Your task to perform on an android device: open app "Microsoft Authenticator" (install if not already installed) Image 0: 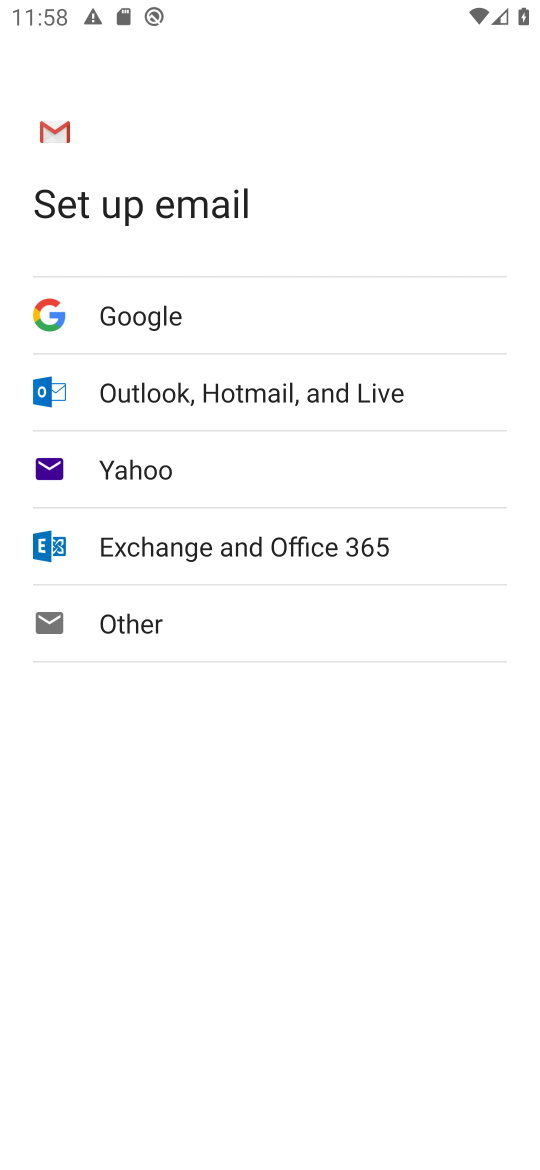
Step 0: press home button
Your task to perform on an android device: open app "Microsoft Authenticator" (install if not already installed) Image 1: 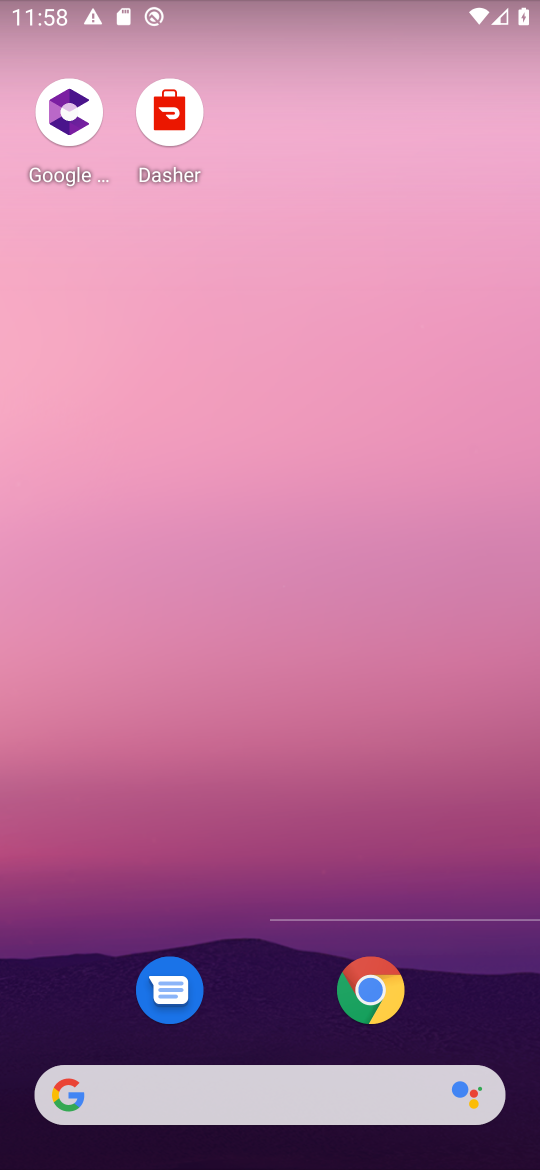
Step 1: drag from (273, 1053) to (299, 220)
Your task to perform on an android device: open app "Microsoft Authenticator" (install if not already installed) Image 2: 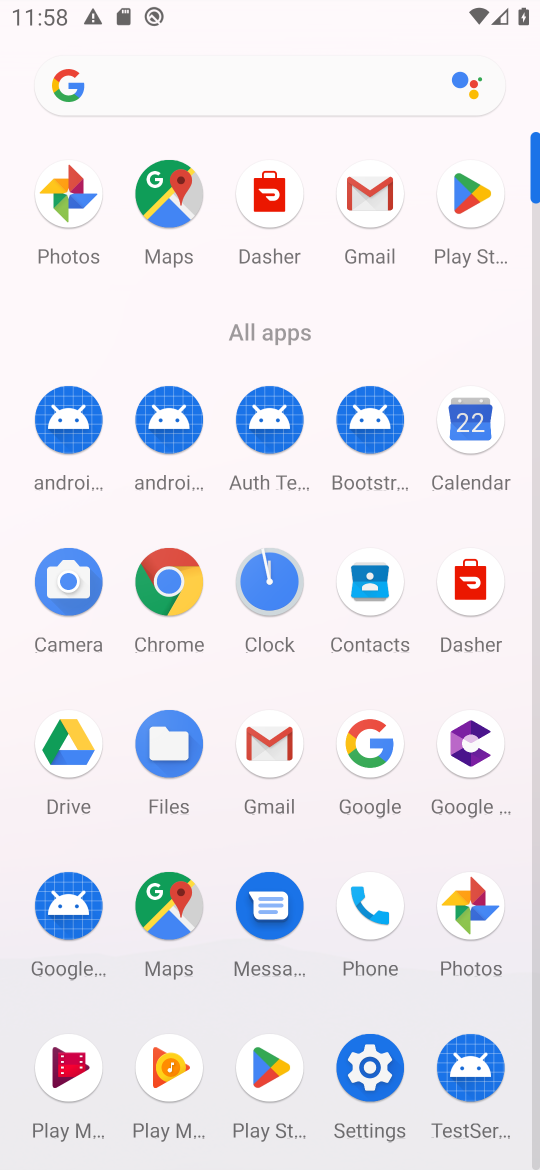
Step 2: click (475, 200)
Your task to perform on an android device: open app "Microsoft Authenticator" (install if not already installed) Image 3: 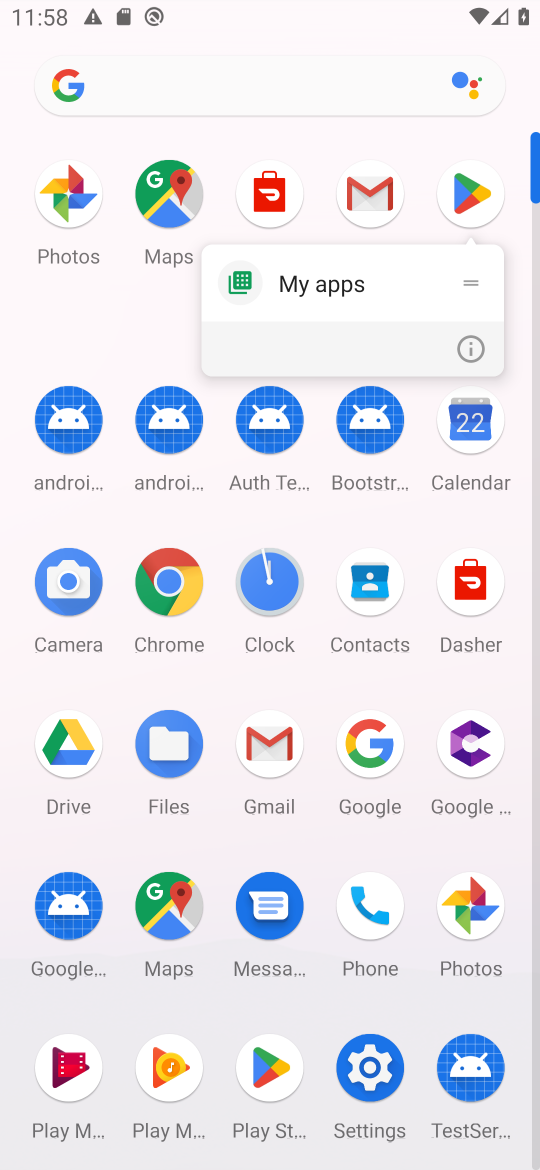
Step 3: click (459, 192)
Your task to perform on an android device: open app "Microsoft Authenticator" (install if not already installed) Image 4: 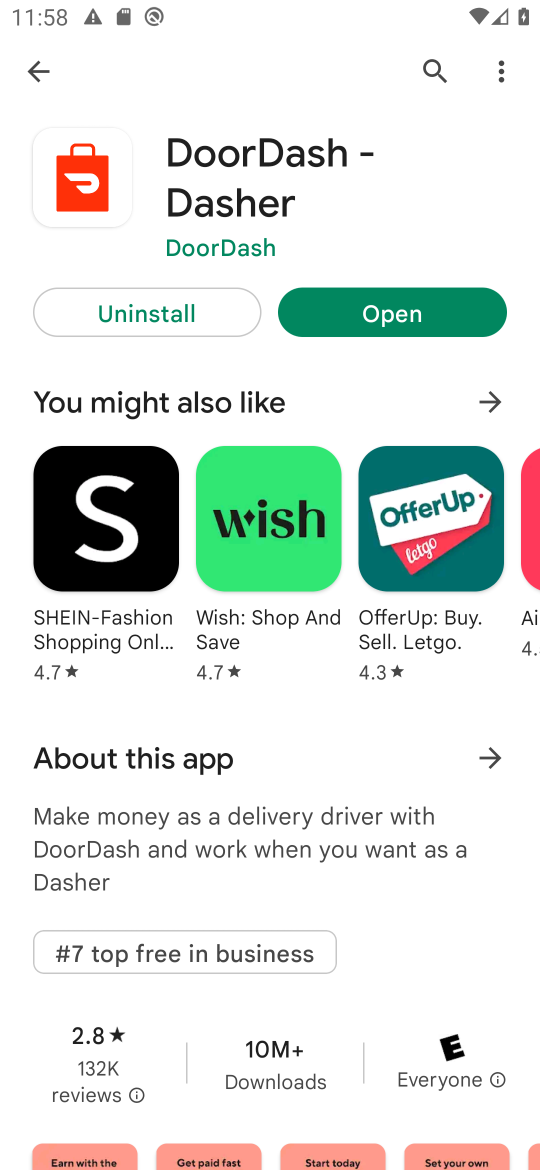
Step 4: click (20, 57)
Your task to perform on an android device: open app "Microsoft Authenticator" (install if not already installed) Image 5: 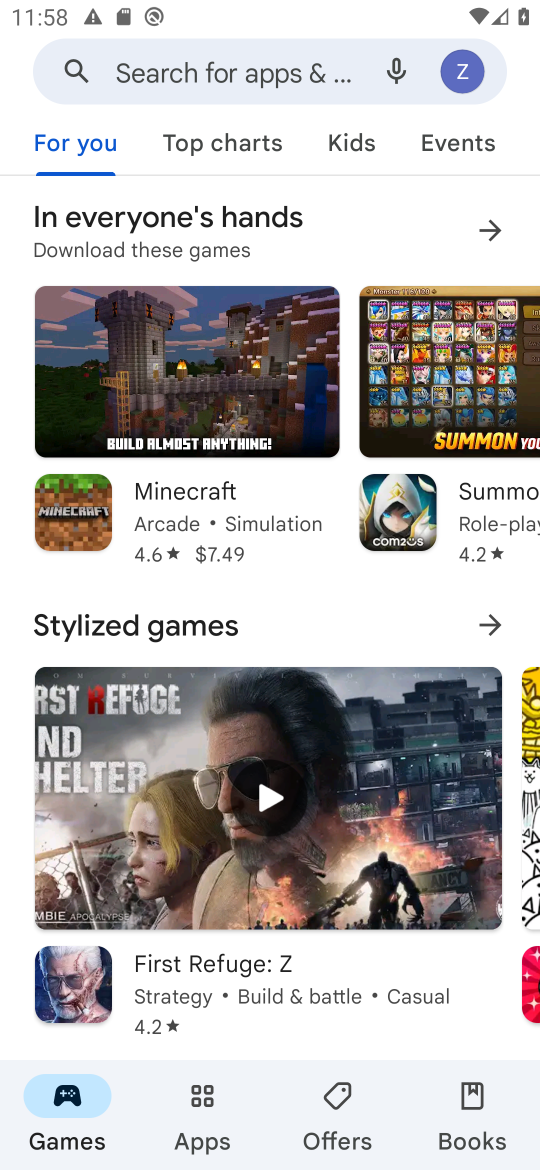
Step 5: click (273, 64)
Your task to perform on an android device: open app "Microsoft Authenticator" (install if not already installed) Image 6: 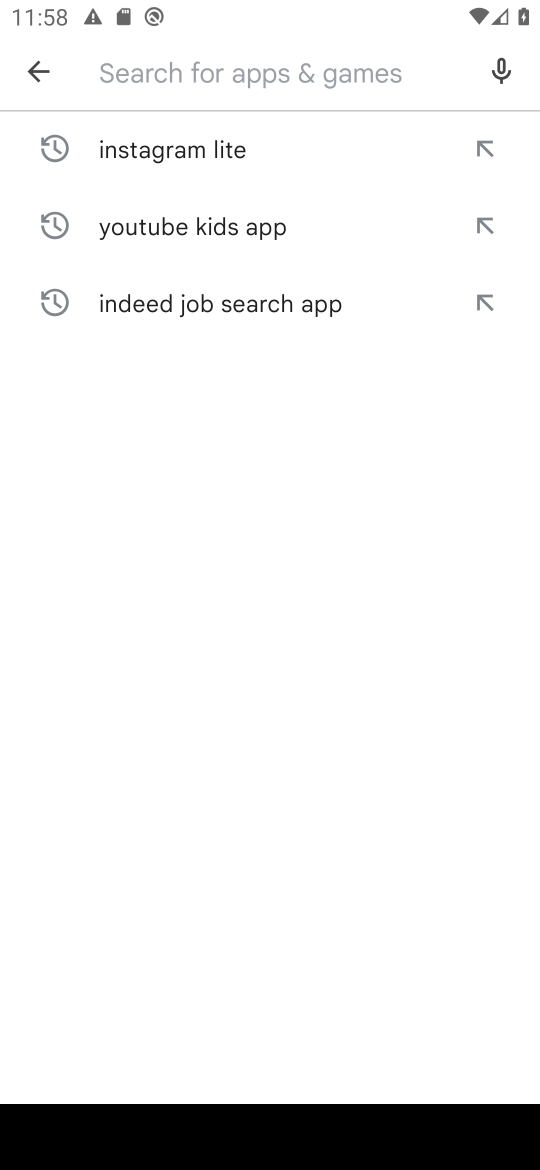
Step 6: type "Microsoft Authenticator "
Your task to perform on an android device: open app "Microsoft Authenticator" (install if not already installed) Image 7: 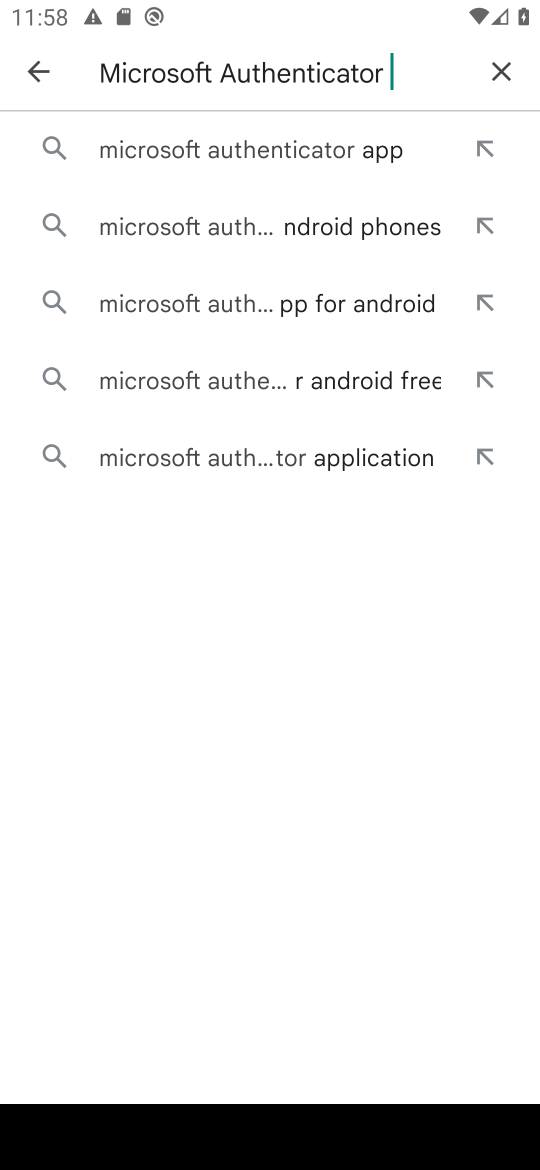
Step 7: click (224, 146)
Your task to perform on an android device: open app "Microsoft Authenticator" (install if not already installed) Image 8: 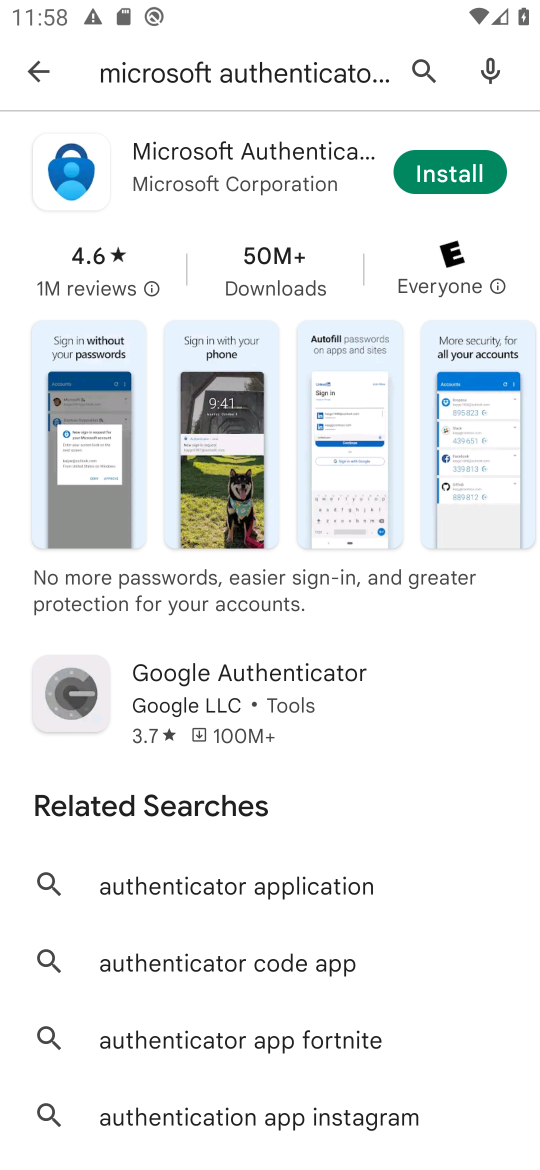
Step 8: click (458, 161)
Your task to perform on an android device: open app "Microsoft Authenticator" (install if not already installed) Image 9: 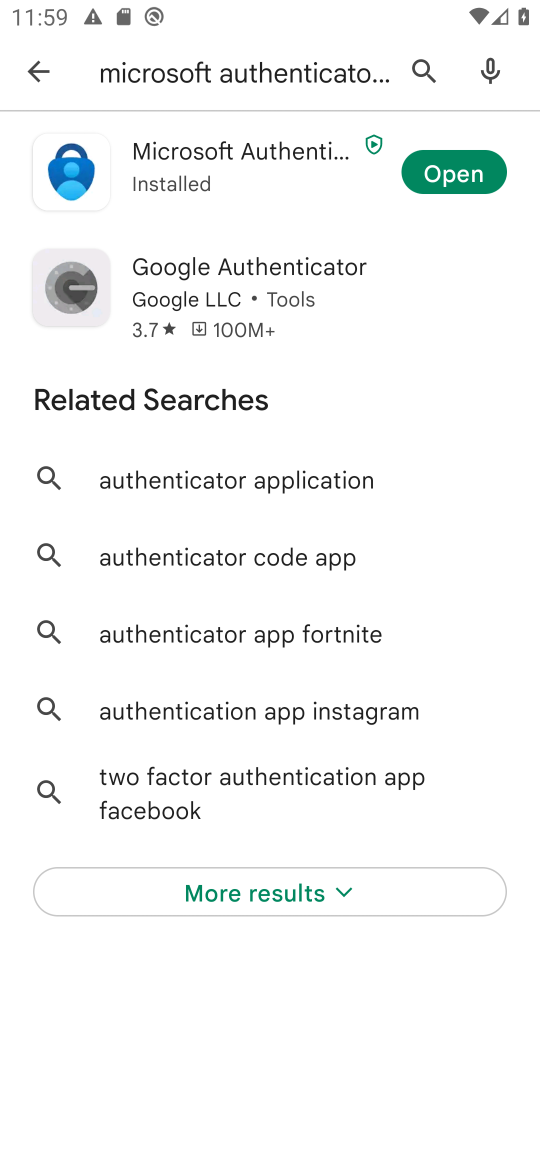
Step 9: click (460, 159)
Your task to perform on an android device: open app "Microsoft Authenticator" (install if not already installed) Image 10: 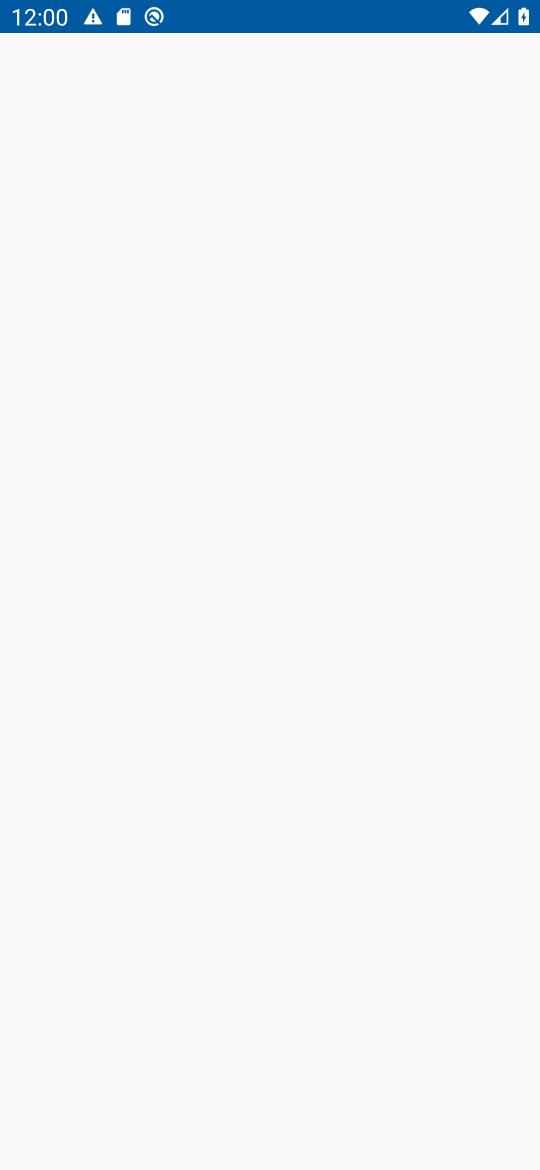
Step 10: task complete